Your task to perform on an android device: Open Maps and search for coffee Image 0: 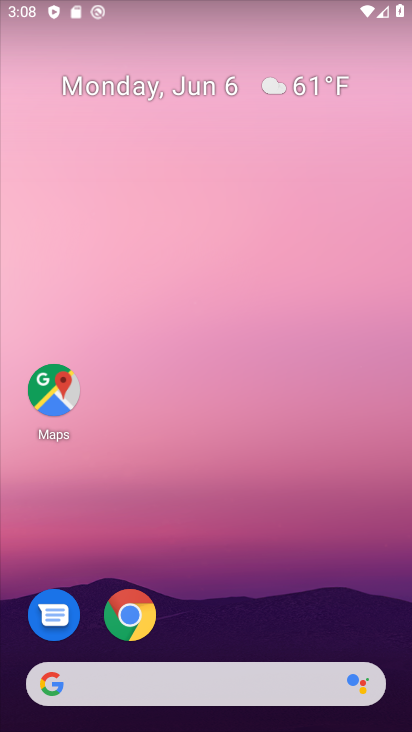
Step 0: drag from (235, 636) to (346, 61)
Your task to perform on an android device: Open Maps and search for coffee Image 1: 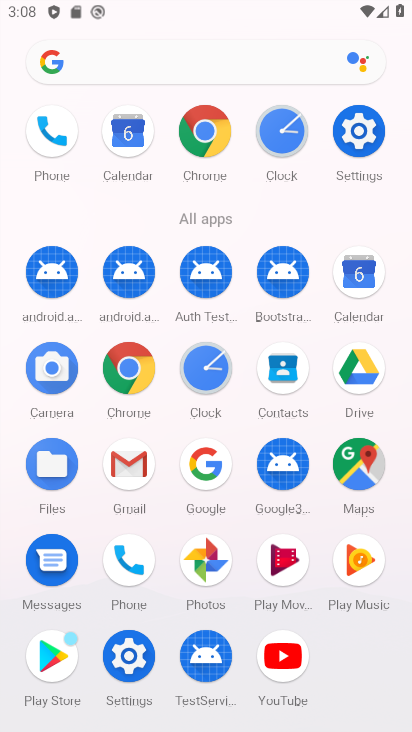
Step 1: click (362, 464)
Your task to perform on an android device: Open Maps and search for coffee Image 2: 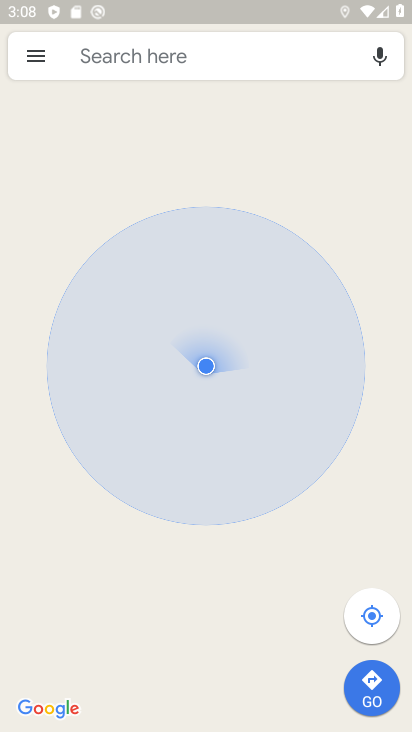
Step 2: click (179, 62)
Your task to perform on an android device: Open Maps and search for coffee Image 3: 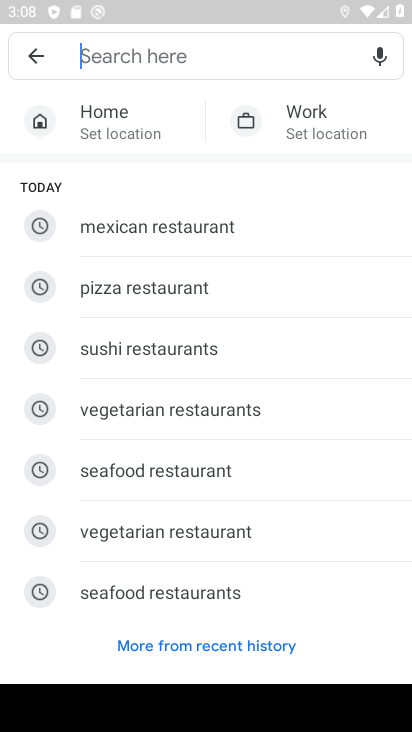
Step 3: click (184, 635)
Your task to perform on an android device: Open Maps and search for coffee Image 4: 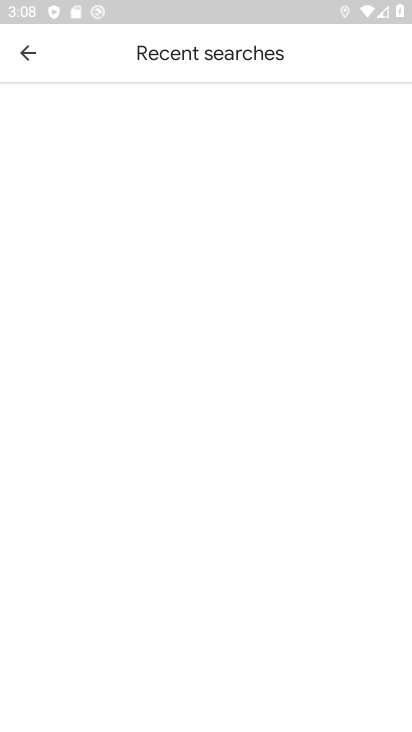
Step 4: drag from (191, 574) to (170, 288)
Your task to perform on an android device: Open Maps and search for coffee Image 5: 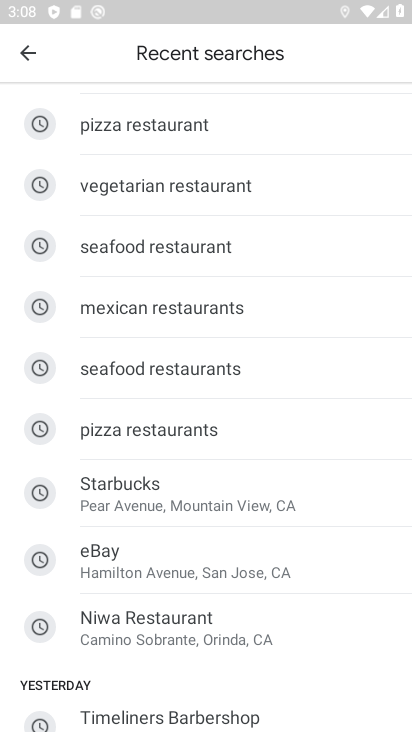
Step 5: drag from (177, 193) to (127, 712)
Your task to perform on an android device: Open Maps and search for coffee Image 6: 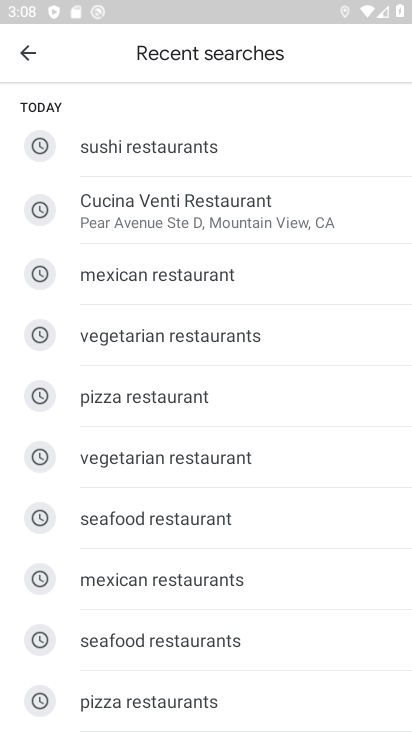
Step 6: click (41, 54)
Your task to perform on an android device: Open Maps and search for coffee Image 7: 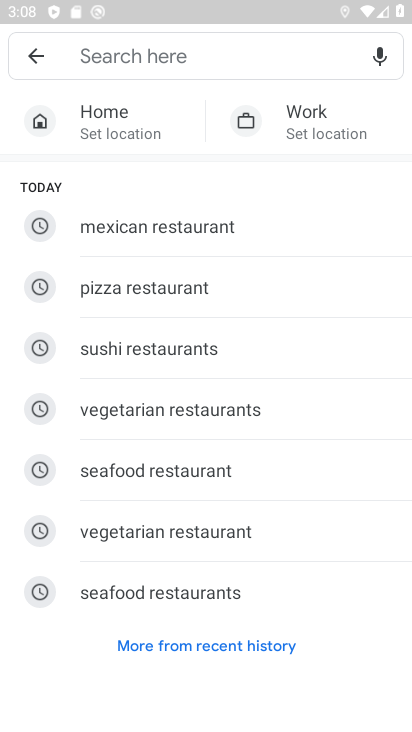
Step 7: click (189, 47)
Your task to perform on an android device: Open Maps and search for coffee Image 8: 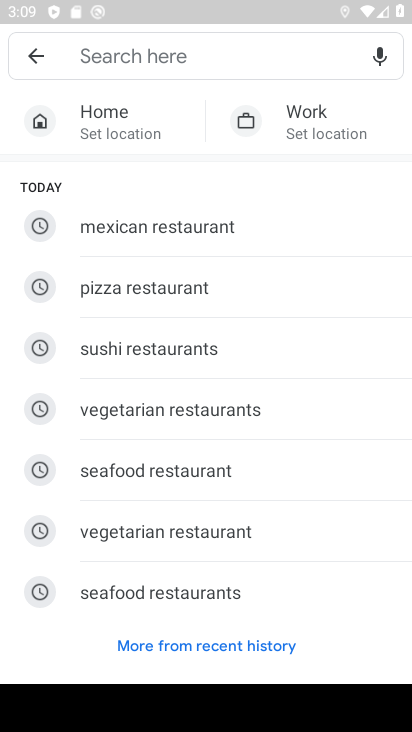
Step 8: type "coffe"
Your task to perform on an android device: Open Maps and search for coffee Image 9: 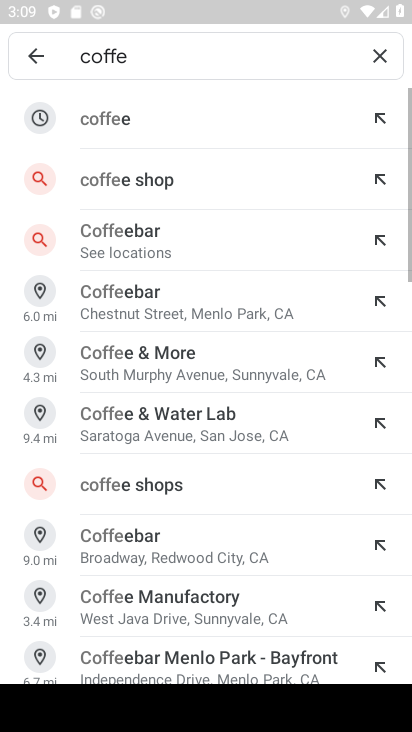
Step 9: click (174, 123)
Your task to perform on an android device: Open Maps and search for coffee Image 10: 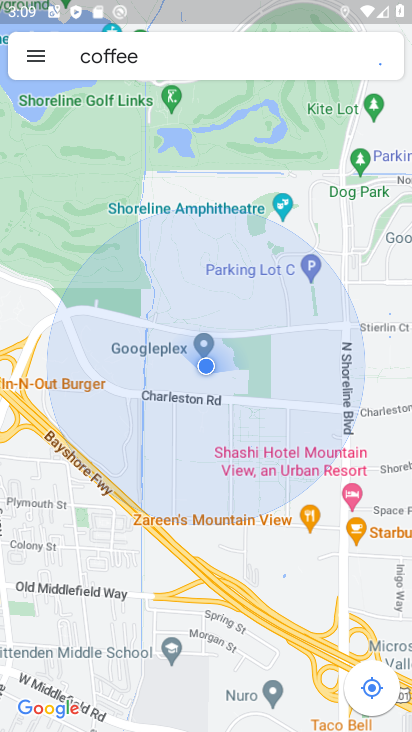
Step 10: task complete